Your task to perform on an android device: Play the last video I watched on Youtube Image 0: 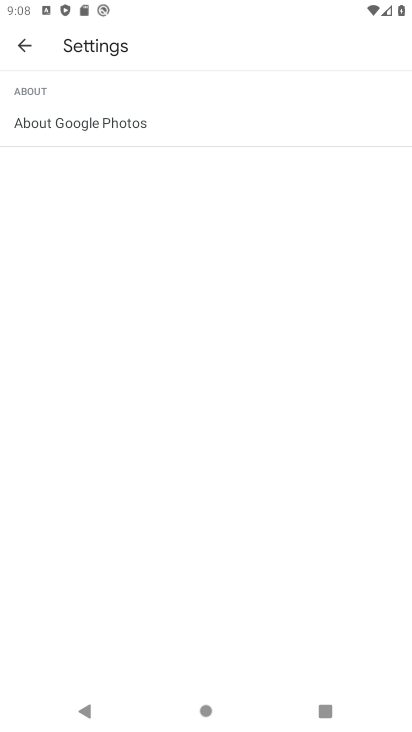
Step 0: press home button
Your task to perform on an android device: Play the last video I watched on Youtube Image 1: 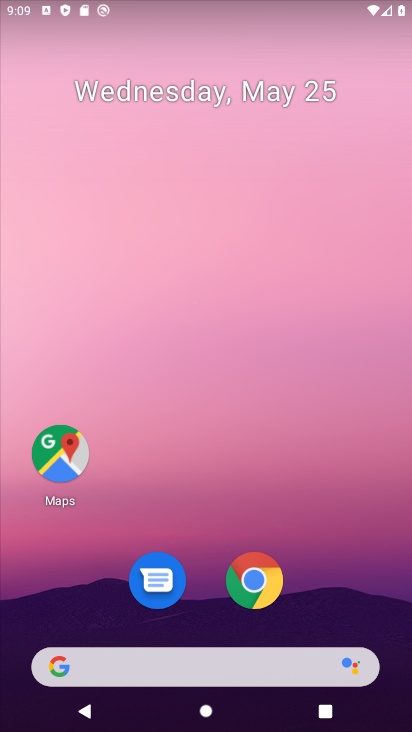
Step 1: drag from (35, 731) to (236, 101)
Your task to perform on an android device: Play the last video I watched on Youtube Image 2: 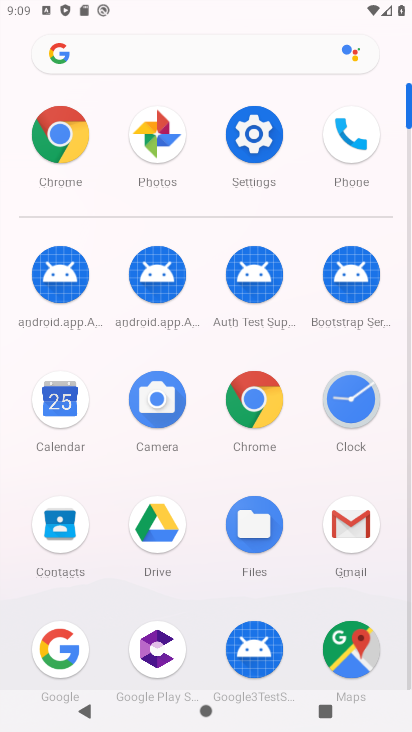
Step 2: drag from (30, 651) to (301, 156)
Your task to perform on an android device: Play the last video I watched on Youtube Image 3: 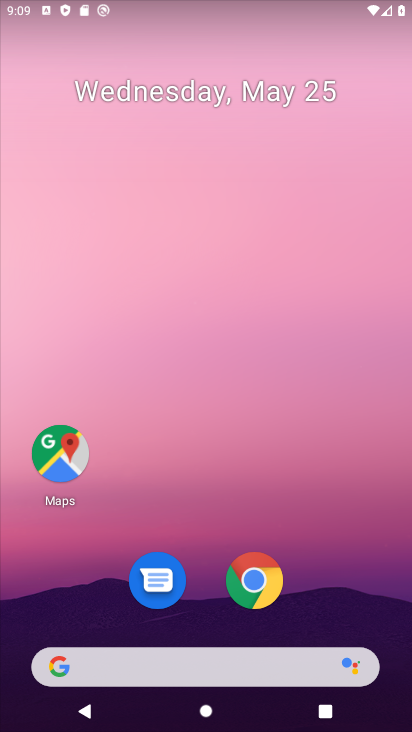
Step 3: drag from (6, 660) to (234, 155)
Your task to perform on an android device: Play the last video I watched on Youtube Image 4: 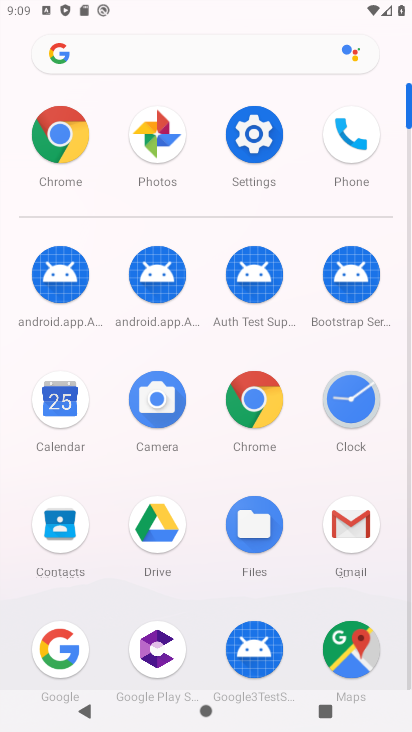
Step 4: drag from (28, 524) to (263, 95)
Your task to perform on an android device: Play the last video I watched on Youtube Image 5: 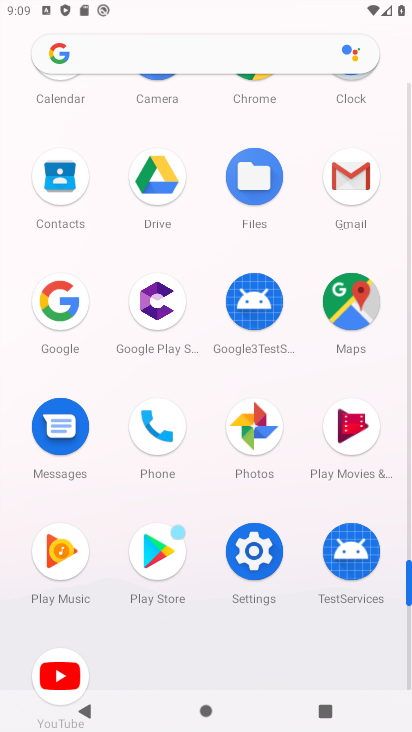
Step 5: click (61, 664)
Your task to perform on an android device: Play the last video I watched on Youtube Image 6: 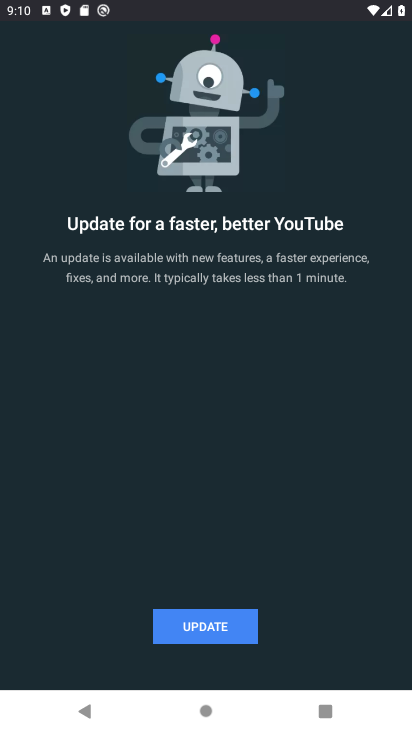
Step 6: task complete